Your task to perform on an android device: Search for Italian restaurants on Maps Image 0: 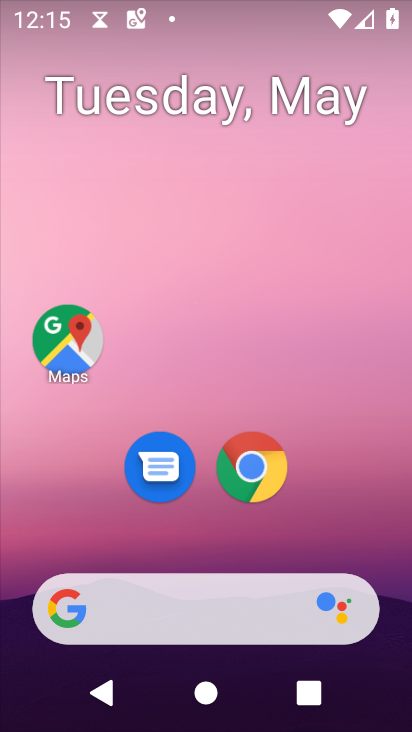
Step 0: click (48, 336)
Your task to perform on an android device: Search for Italian restaurants on Maps Image 1: 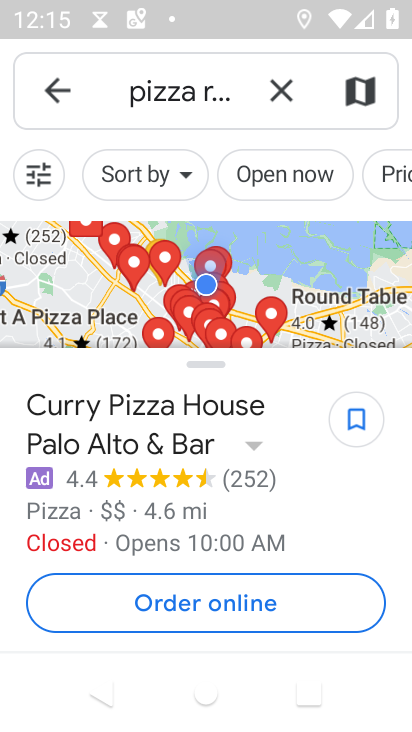
Step 1: click (285, 99)
Your task to perform on an android device: Search for Italian restaurants on Maps Image 2: 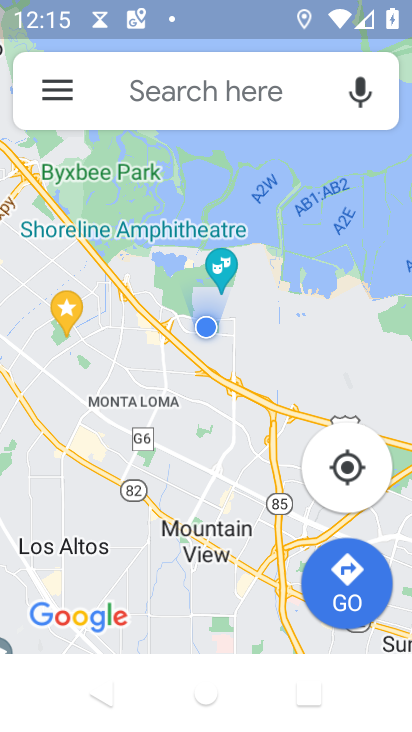
Step 2: type "Italian restaurants"
Your task to perform on an android device: Search for Italian restaurants on Maps Image 3: 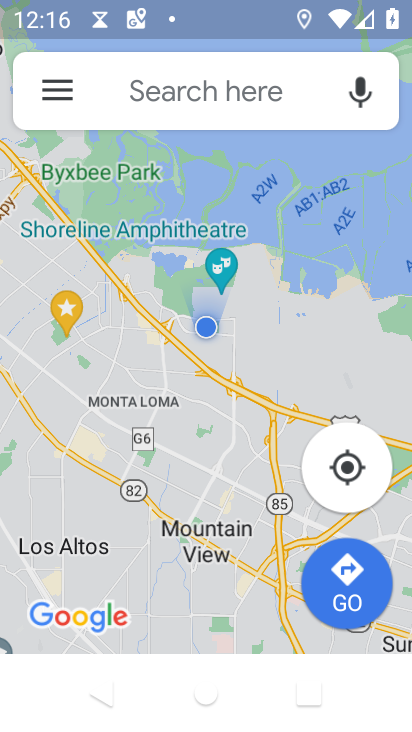
Step 3: click (241, 92)
Your task to perform on an android device: Search for Italian restaurants on Maps Image 4: 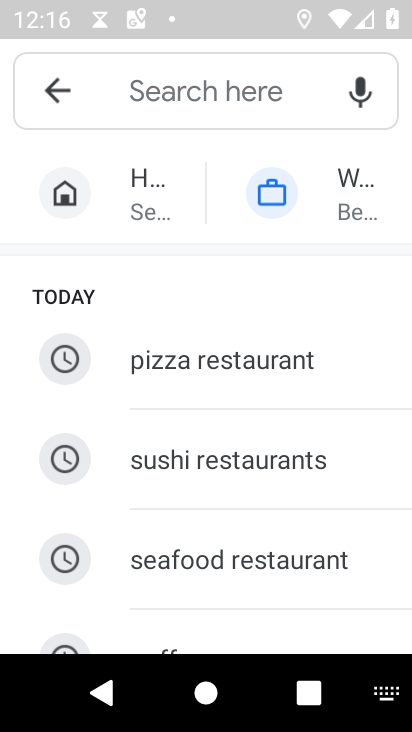
Step 4: type "Italian restaurants"
Your task to perform on an android device: Search for Italian restaurants on Maps Image 5: 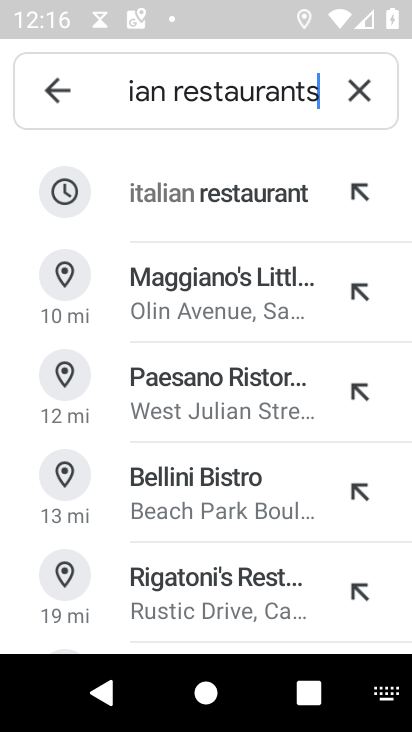
Step 5: click (264, 196)
Your task to perform on an android device: Search for Italian restaurants on Maps Image 6: 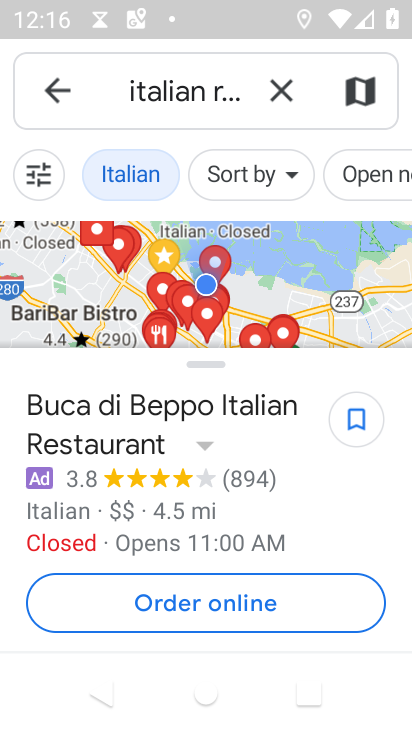
Step 6: task complete